Your task to perform on an android device: turn on improve location accuracy Image 0: 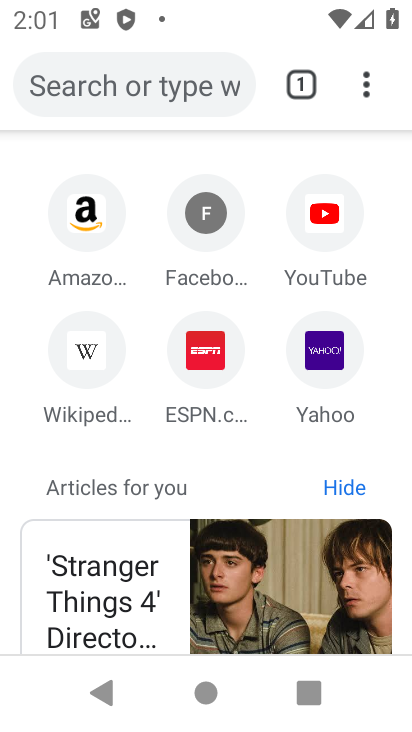
Step 0: press home button
Your task to perform on an android device: turn on improve location accuracy Image 1: 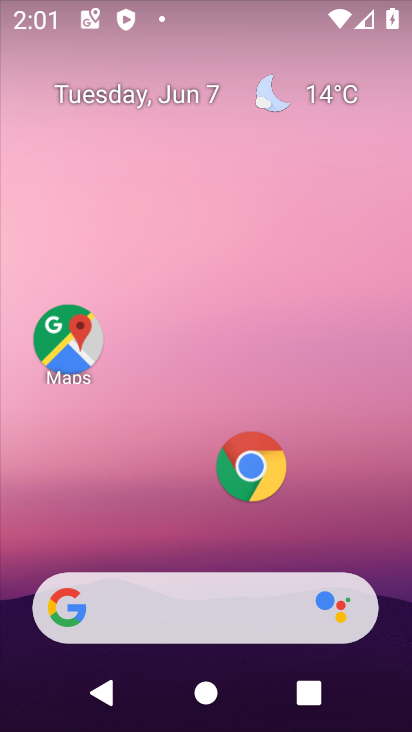
Step 1: drag from (149, 721) to (198, 209)
Your task to perform on an android device: turn on improve location accuracy Image 2: 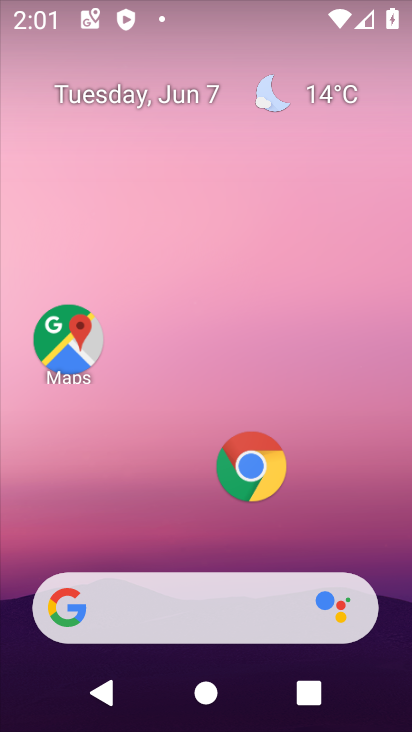
Step 2: drag from (167, 728) to (132, 2)
Your task to perform on an android device: turn on improve location accuracy Image 3: 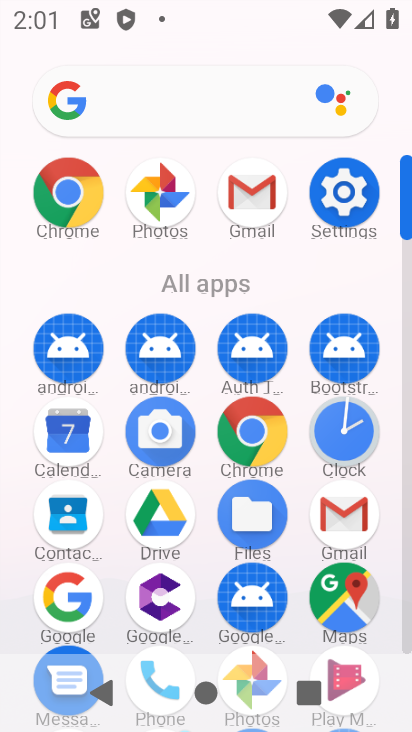
Step 3: click (344, 213)
Your task to perform on an android device: turn on improve location accuracy Image 4: 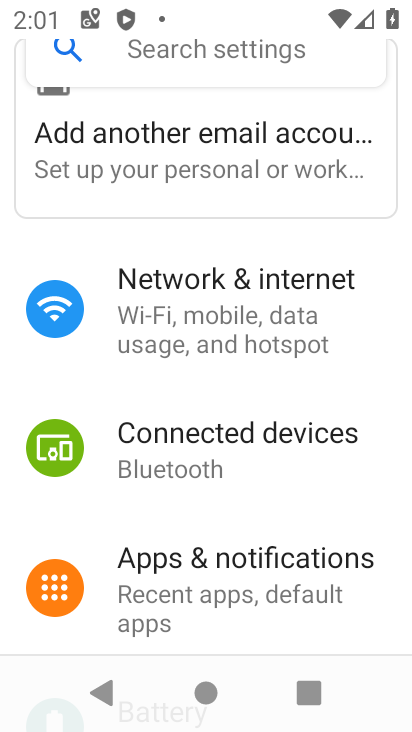
Step 4: drag from (249, 511) to (254, 126)
Your task to perform on an android device: turn on improve location accuracy Image 5: 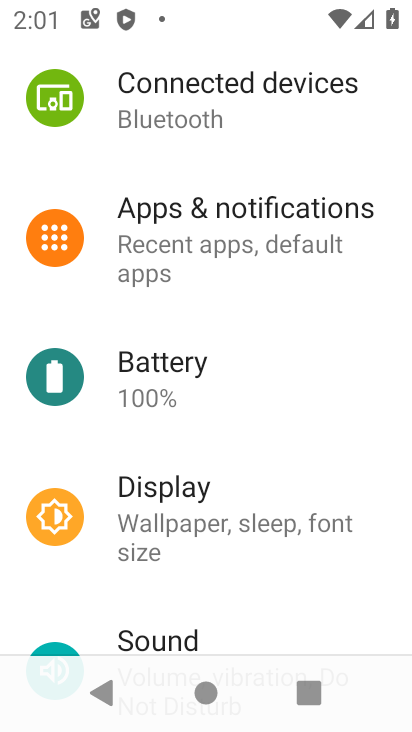
Step 5: drag from (266, 480) to (253, 217)
Your task to perform on an android device: turn on improve location accuracy Image 6: 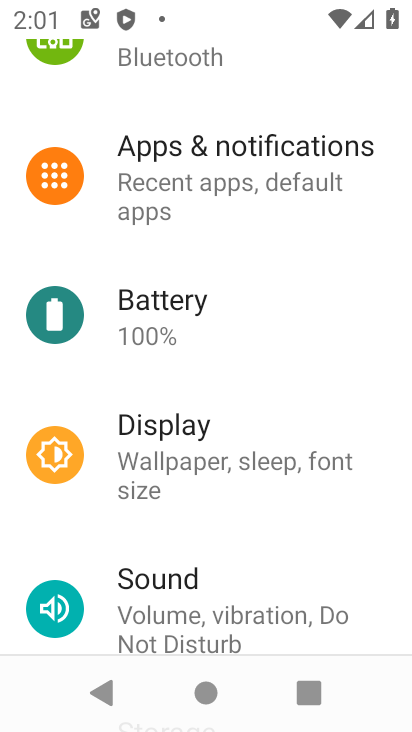
Step 6: drag from (252, 559) to (252, 210)
Your task to perform on an android device: turn on improve location accuracy Image 7: 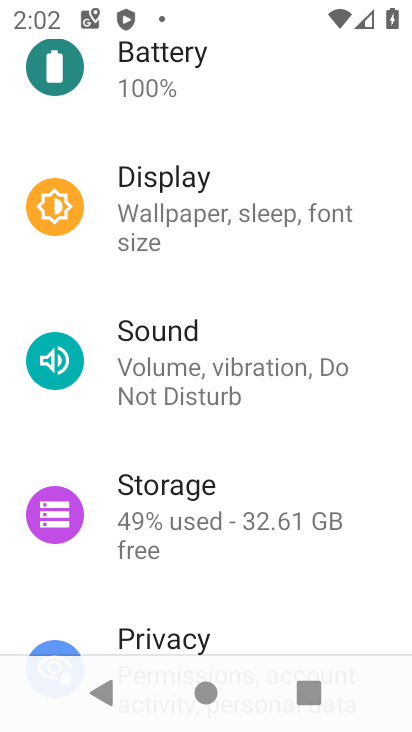
Step 7: drag from (257, 614) to (255, 296)
Your task to perform on an android device: turn on improve location accuracy Image 8: 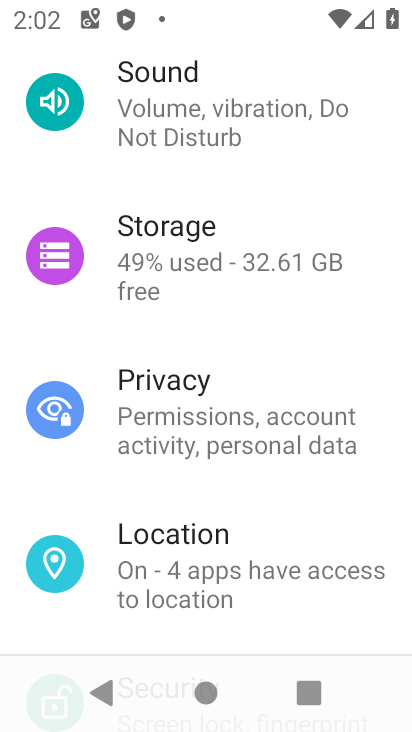
Step 8: click (177, 571)
Your task to perform on an android device: turn on improve location accuracy Image 9: 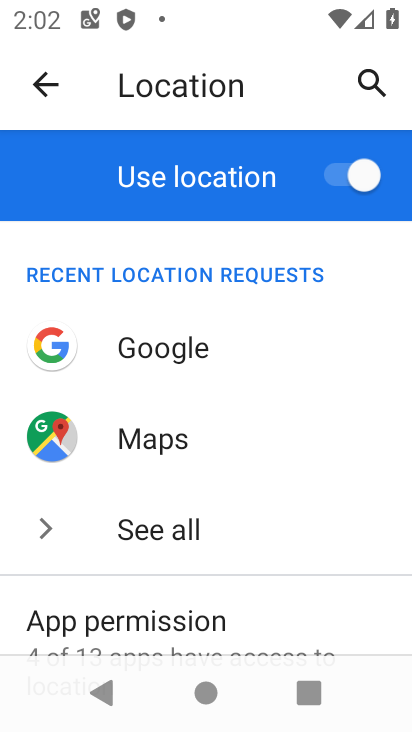
Step 9: drag from (273, 571) to (271, 201)
Your task to perform on an android device: turn on improve location accuracy Image 10: 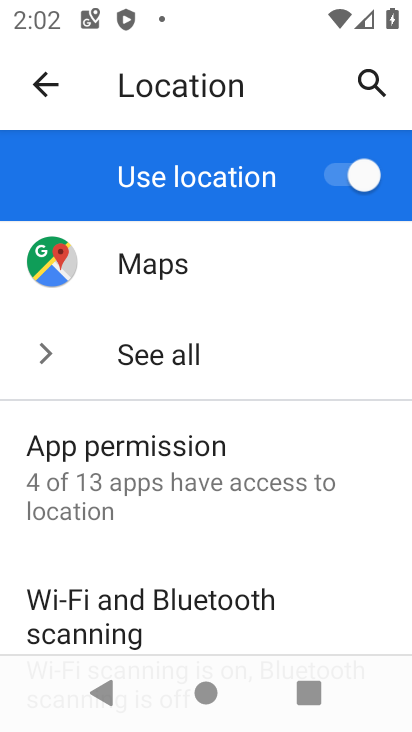
Step 10: drag from (330, 575) to (340, 198)
Your task to perform on an android device: turn on improve location accuracy Image 11: 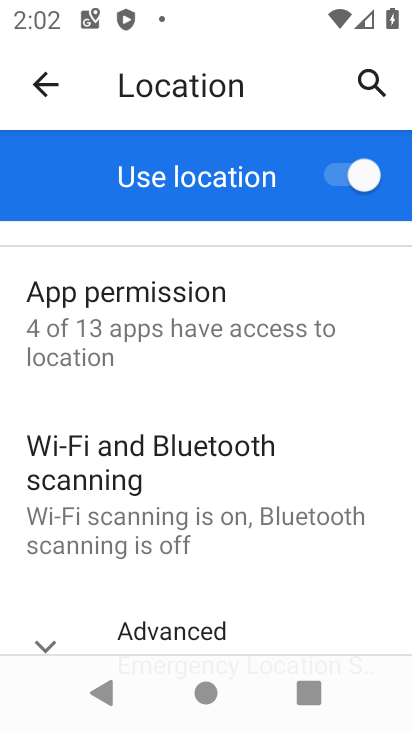
Step 11: click (191, 639)
Your task to perform on an android device: turn on improve location accuracy Image 12: 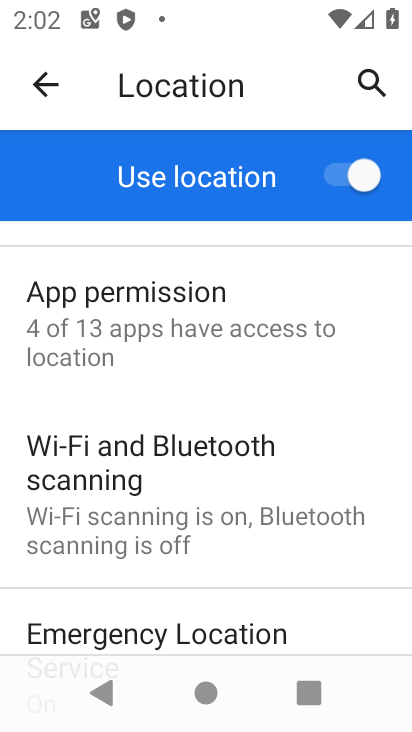
Step 12: drag from (327, 608) to (327, 319)
Your task to perform on an android device: turn on improve location accuracy Image 13: 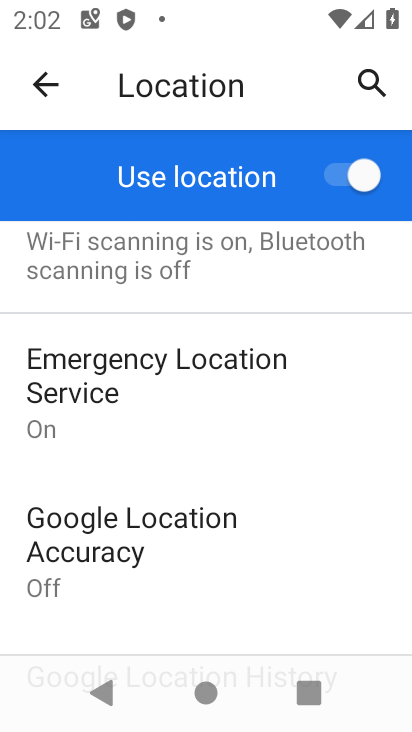
Step 13: click (125, 564)
Your task to perform on an android device: turn on improve location accuracy Image 14: 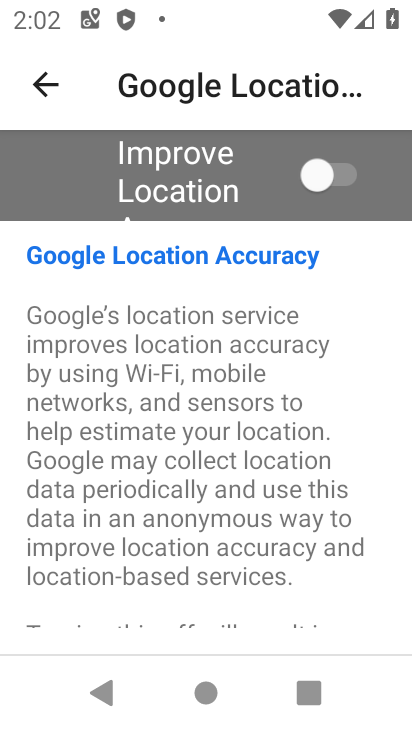
Step 14: click (329, 176)
Your task to perform on an android device: turn on improve location accuracy Image 15: 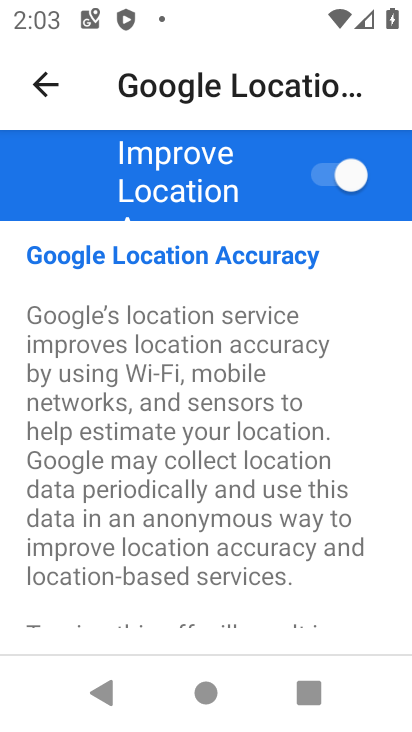
Step 15: task complete